Your task to perform on an android device: Add logitech g pro to the cart on costco, then select checkout. Image 0: 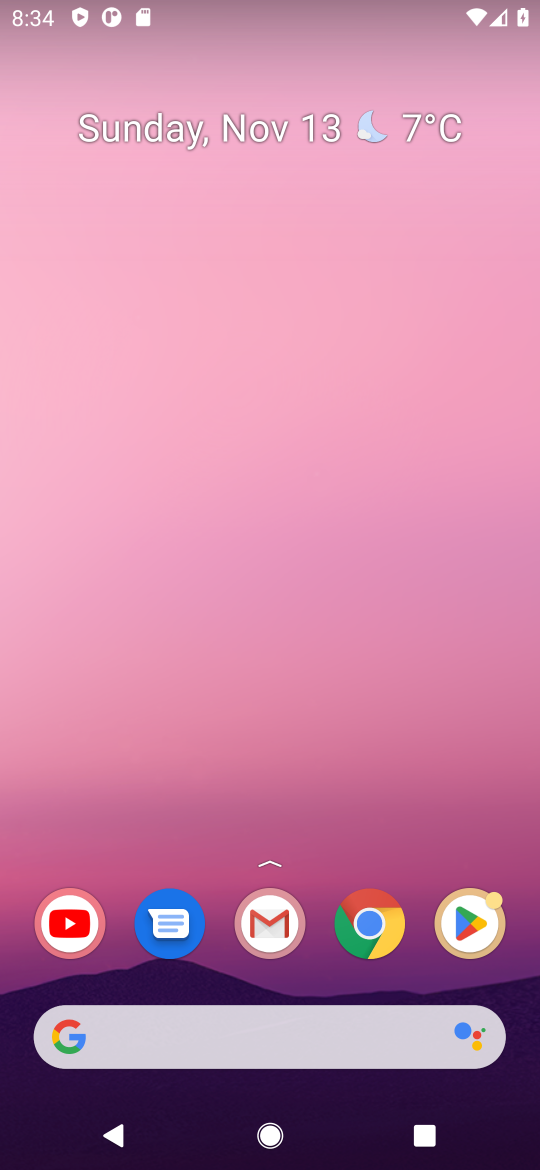
Step 0: click (358, 919)
Your task to perform on an android device: Add logitech g pro to the cart on costco, then select checkout. Image 1: 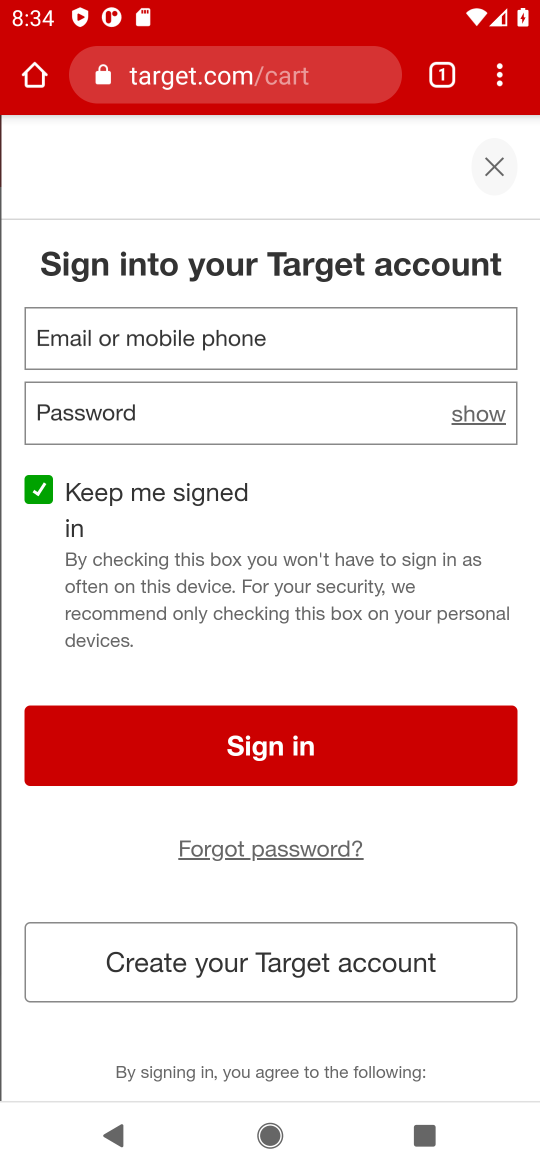
Step 1: click (185, 94)
Your task to perform on an android device: Add logitech g pro to the cart on costco, then select checkout. Image 2: 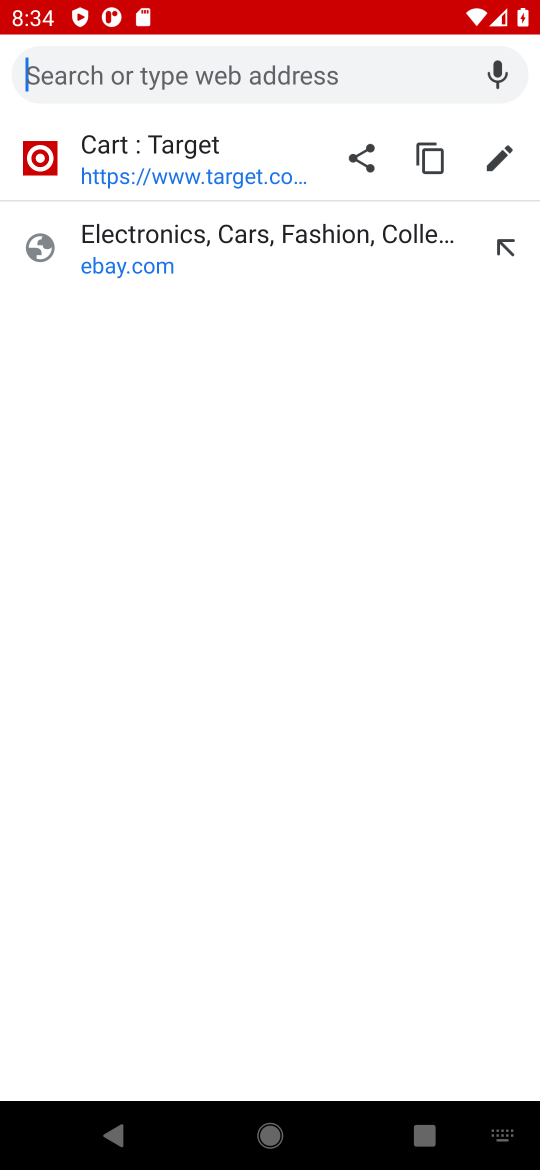
Step 2: type "costco"
Your task to perform on an android device: Add logitech g pro to the cart on costco, then select checkout. Image 3: 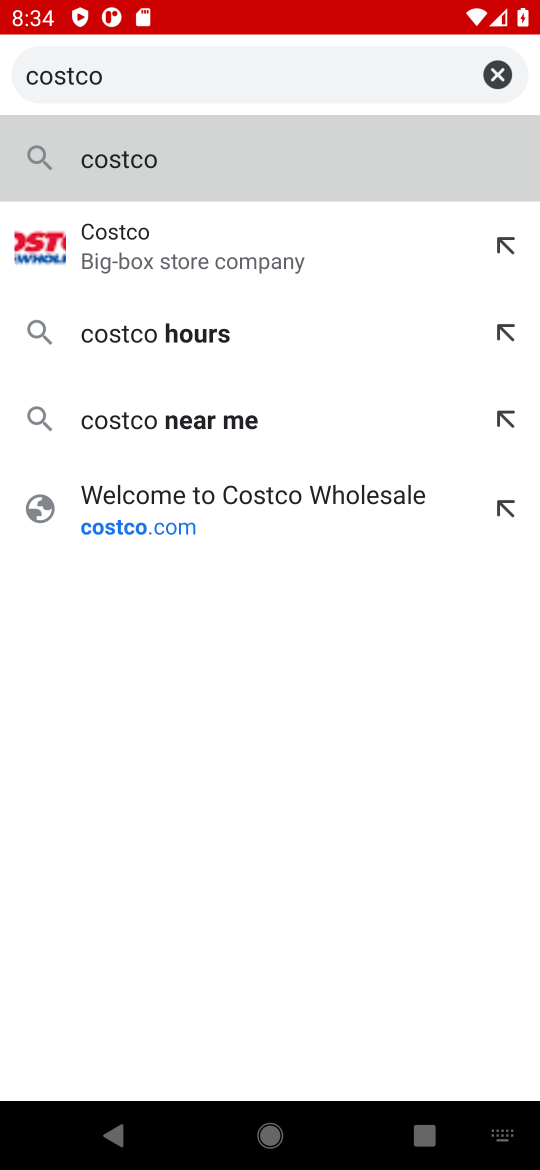
Step 3: click (223, 521)
Your task to perform on an android device: Add logitech g pro to the cart on costco, then select checkout. Image 4: 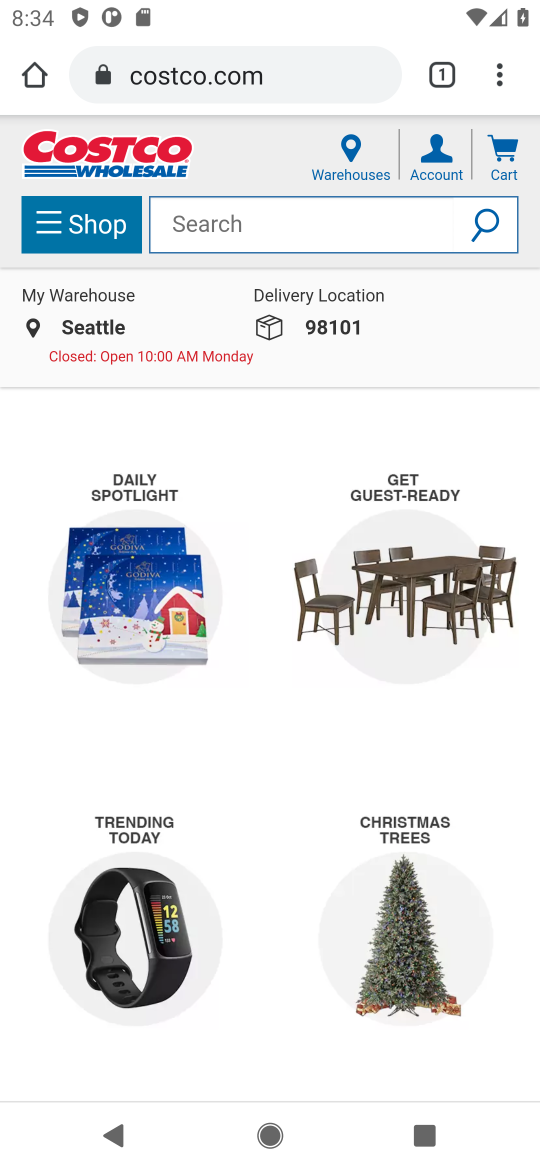
Step 4: click (272, 241)
Your task to perform on an android device: Add logitech g pro to the cart on costco, then select checkout. Image 5: 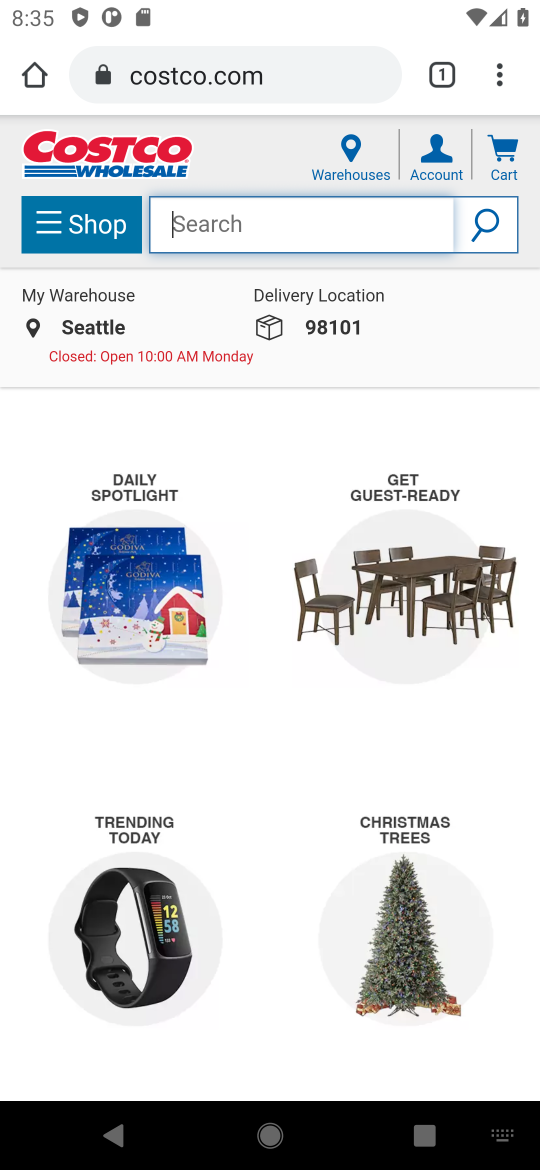
Step 5: type "logitech g pro"
Your task to perform on an android device: Add logitech g pro to the cart on costco, then select checkout. Image 6: 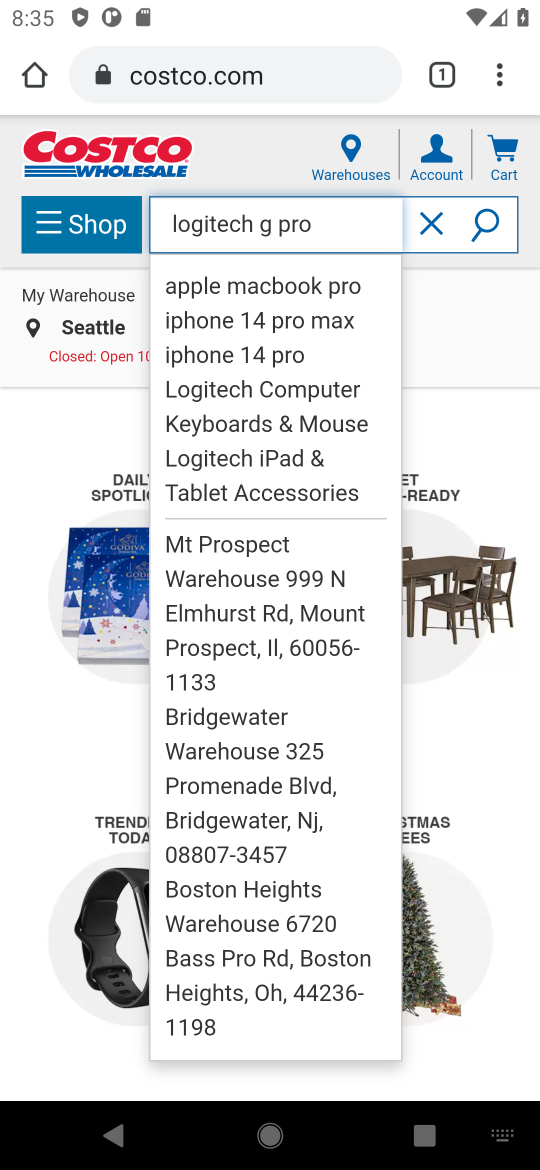
Step 6: press enter
Your task to perform on an android device: Add logitech g pro to the cart on costco, then select checkout. Image 7: 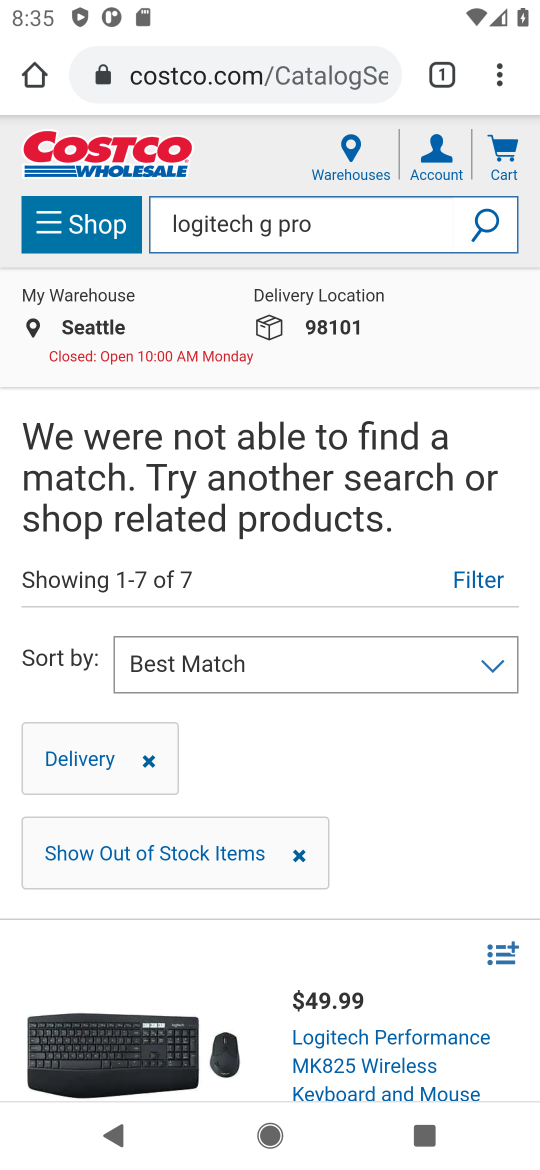
Step 7: drag from (441, 849) to (467, 429)
Your task to perform on an android device: Add logitech g pro to the cart on costco, then select checkout. Image 8: 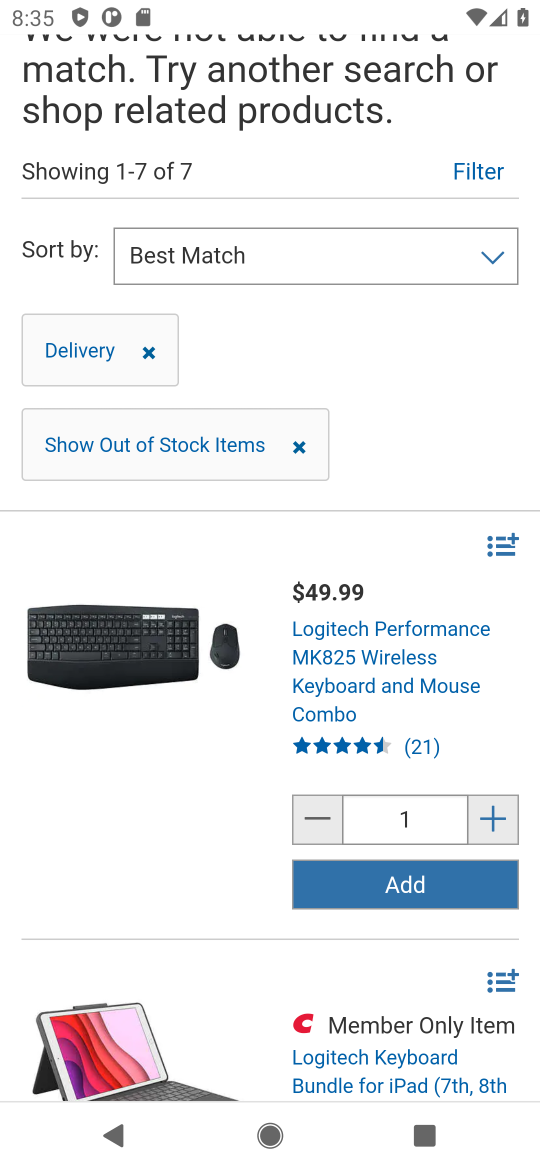
Step 8: click (384, 895)
Your task to perform on an android device: Add logitech g pro to the cart on costco, then select checkout. Image 9: 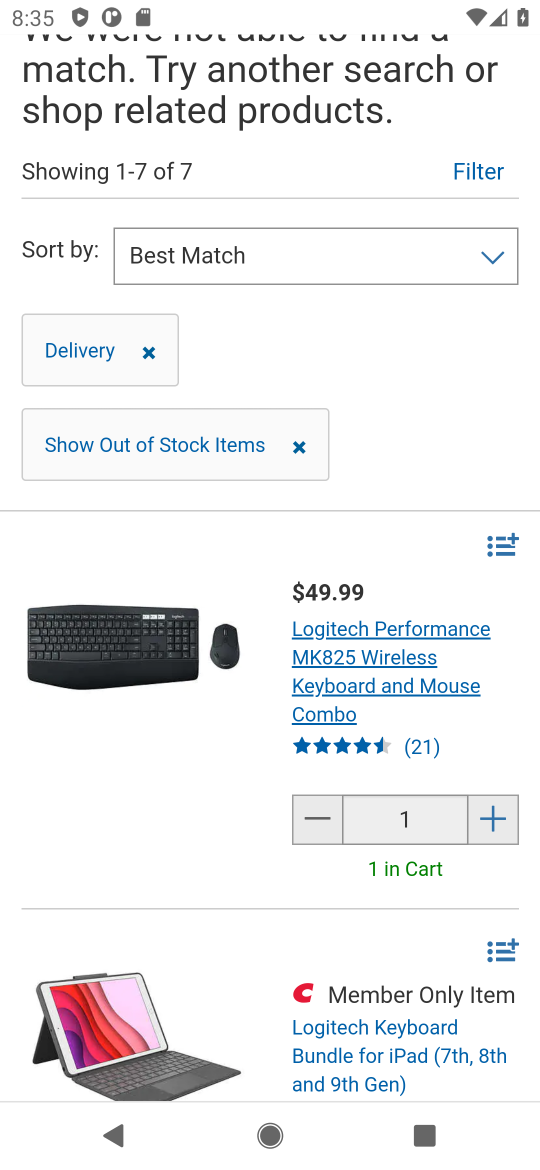
Step 9: drag from (427, 545) to (410, 1137)
Your task to perform on an android device: Add logitech g pro to the cart on costco, then select checkout. Image 10: 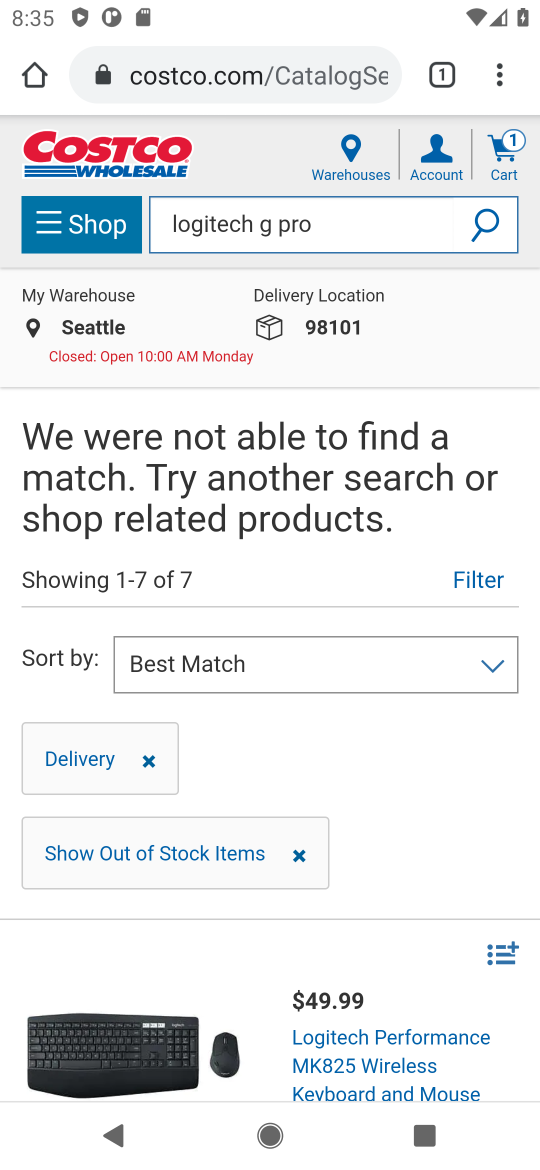
Step 10: click (504, 164)
Your task to perform on an android device: Add logitech g pro to the cart on costco, then select checkout. Image 11: 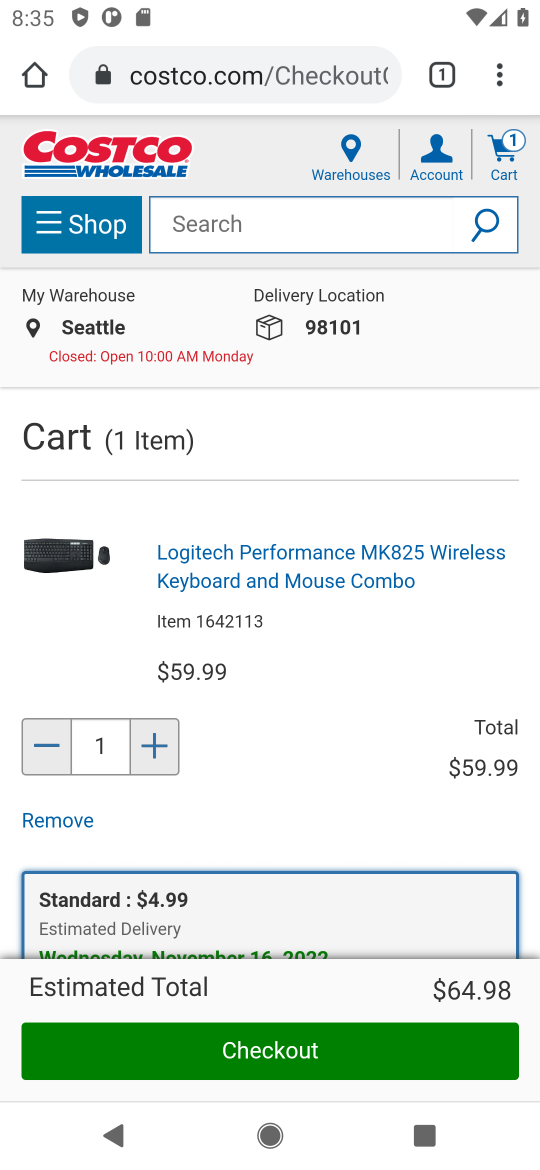
Step 11: click (214, 1057)
Your task to perform on an android device: Add logitech g pro to the cart on costco, then select checkout. Image 12: 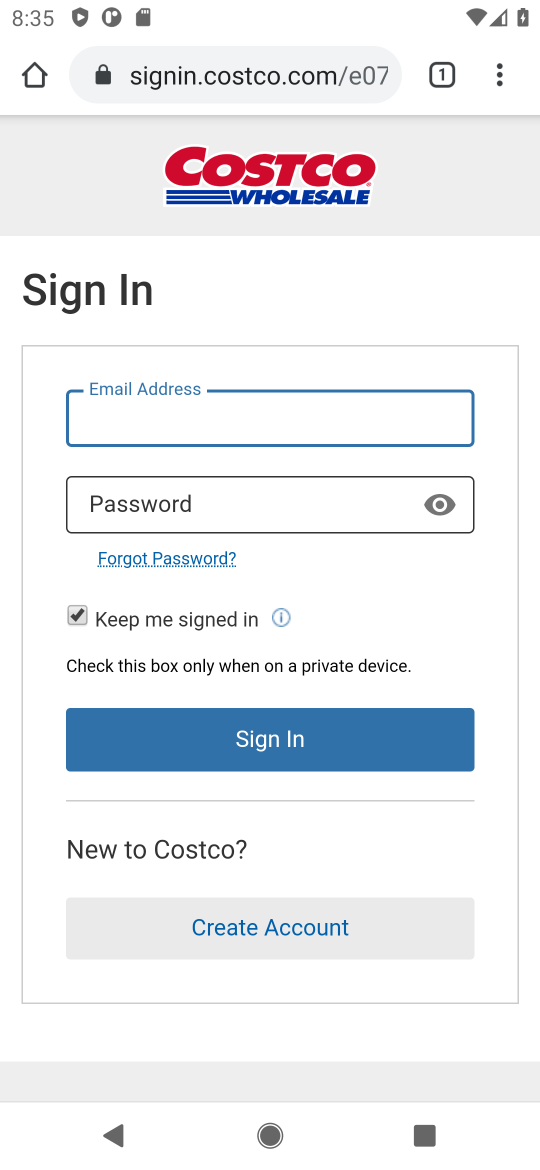
Step 12: task complete